Your task to perform on an android device: see sites visited before in the chrome app Image 0: 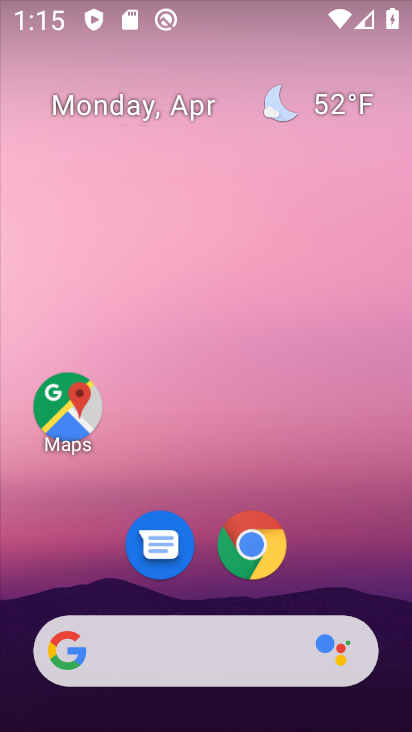
Step 0: click (255, 552)
Your task to perform on an android device: see sites visited before in the chrome app Image 1: 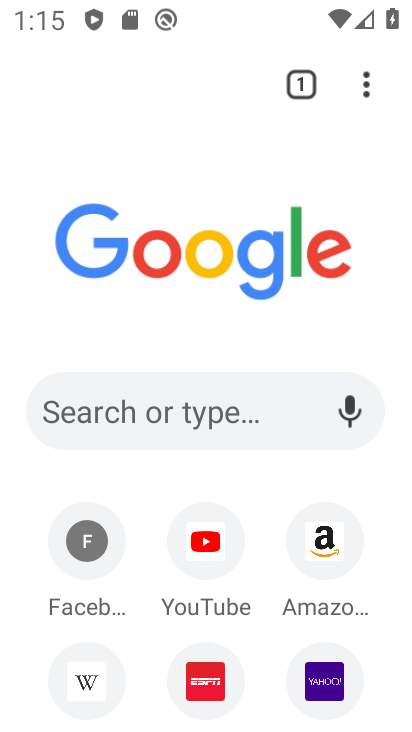
Step 1: click (365, 95)
Your task to perform on an android device: see sites visited before in the chrome app Image 2: 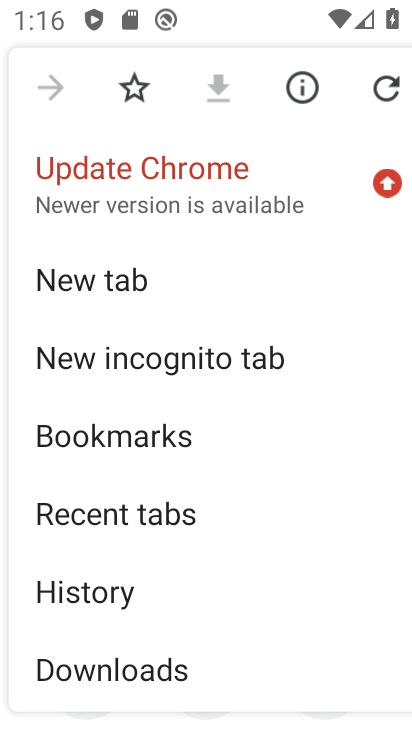
Step 2: drag from (166, 629) to (177, 207)
Your task to perform on an android device: see sites visited before in the chrome app Image 3: 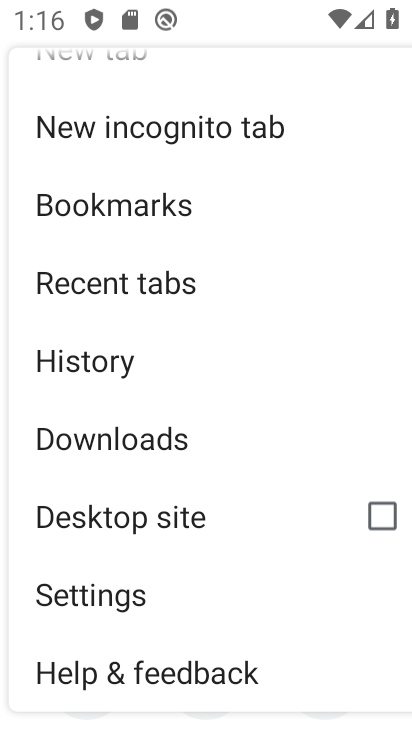
Step 3: click (88, 285)
Your task to perform on an android device: see sites visited before in the chrome app Image 4: 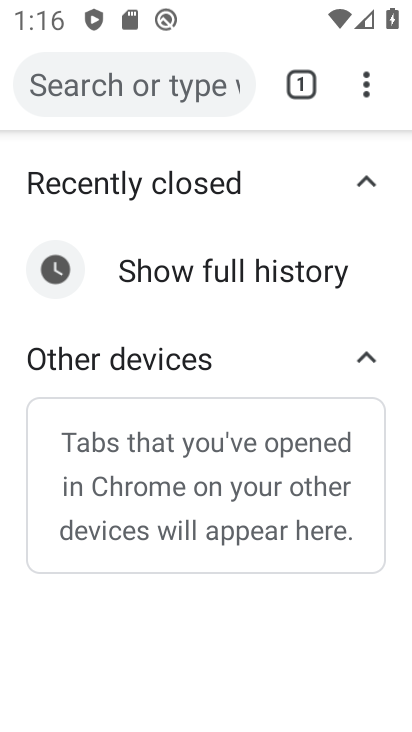
Step 4: task complete